Your task to perform on an android device: turn on bluetooth scan Image 0: 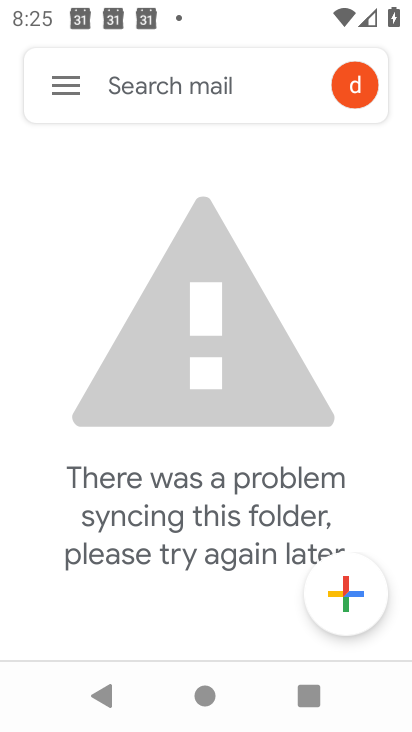
Step 0: press home button
Your task to perform on an android device: turn on bluetooth scan Image 1: 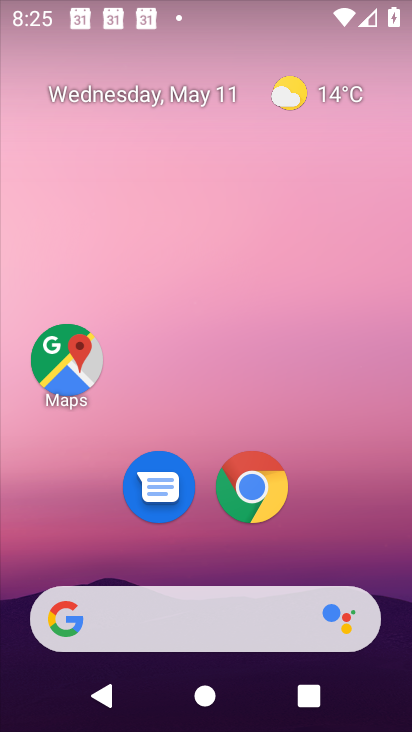
Step 1: drag from (233, 728) to (251, 123)
Your task to perform on an android device: turn on bluetooth scan Image 2: 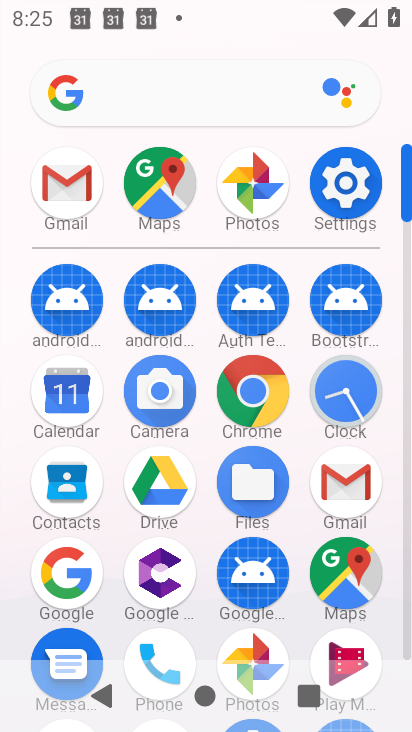
Step 2: click (340, 180)
Your task to perform on an android device: turn on bluetooth scan Image 3: 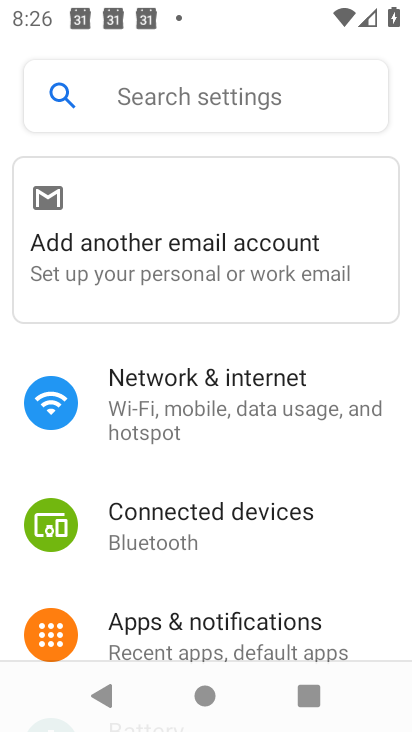
Step 3: drag from (140, 614) to (169, 261)
Your task to perform on an android device: turn on bluetooth scan Image 4: 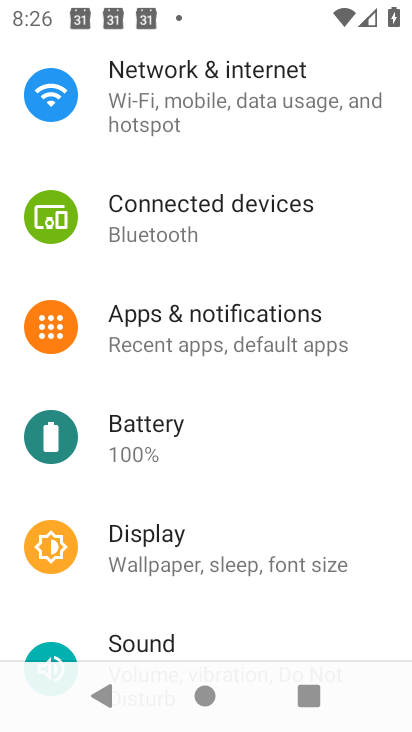
Step 4: drag from (188, 611) to (197, 240)
Your task to perform on an android device: turn on bluetooth scan Image 5: 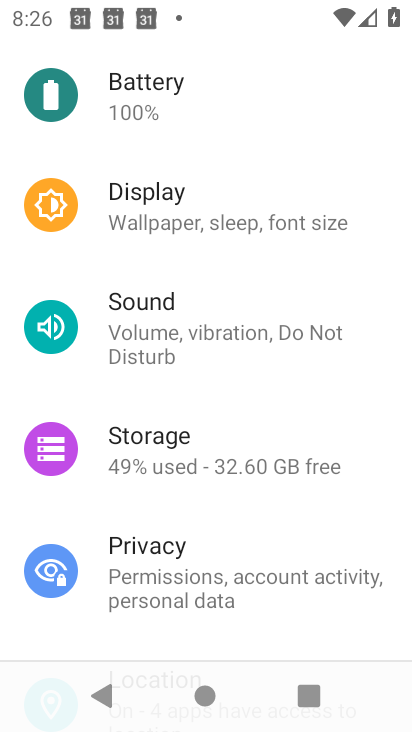
Step 5: drag from (186, 622) to (211, 277)
Your task to perform on an android device: turn on bluetooth scan Image 6: 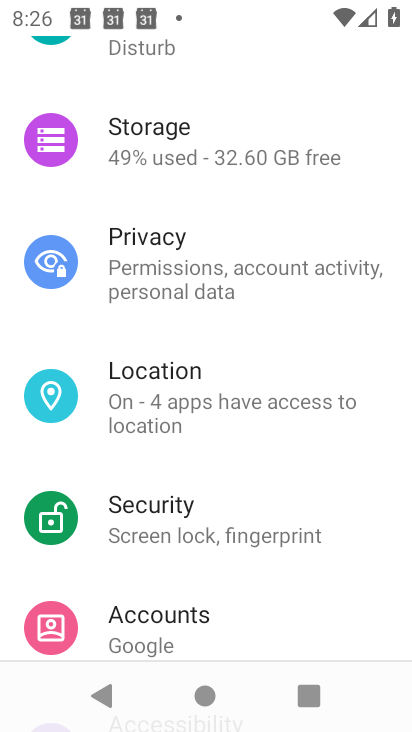
Step 6: click (175, 389)
Your task to perform on an android device: turn on bluetooth scan Image 7: 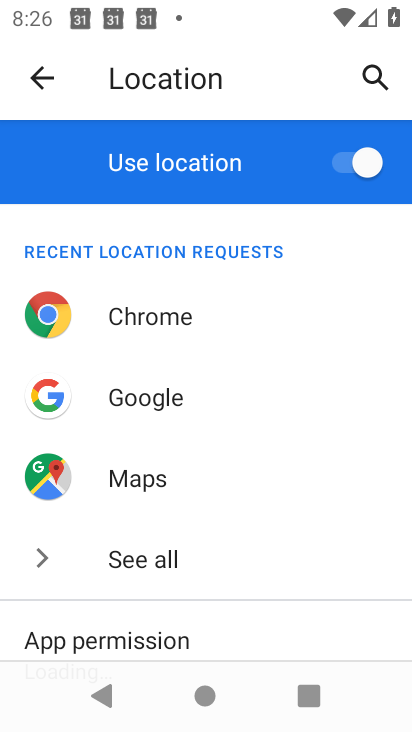
Step 7: drag from (194, 639) to (200, 241)
Your task to perform on an android device: turn on bluetooth scan Image 8: 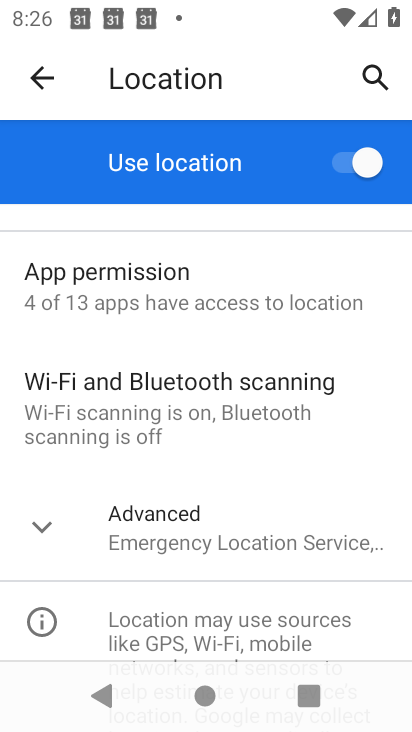
Step 8: click (133, 392)
Your task to perform on an android device: turn on bluetooth scan Image 9: 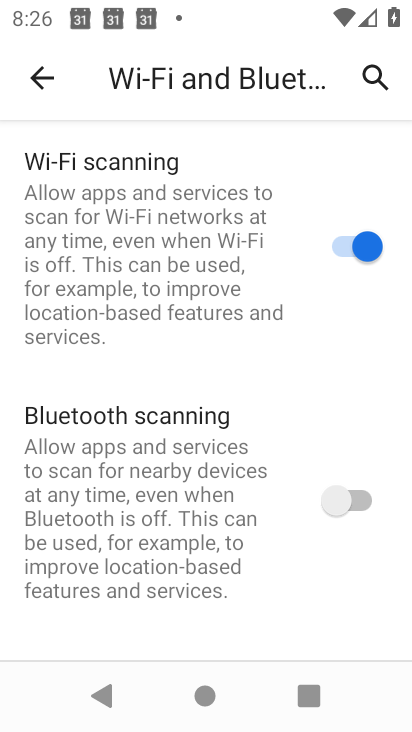
Step 9: click (360, 501)
Your task to perform on an android device: turn on bluetooth scan Image 10: 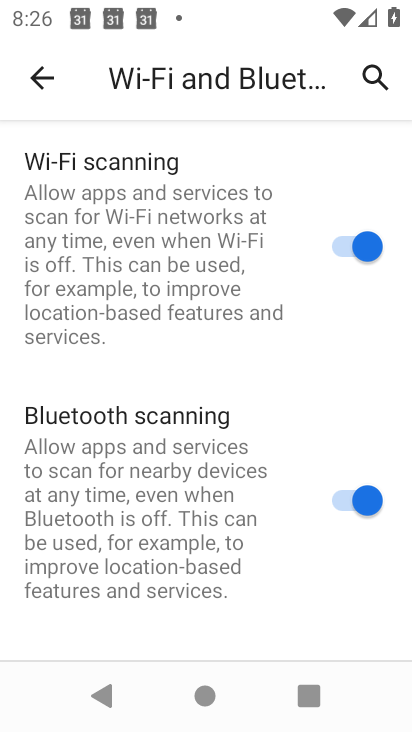
Step 10: task complete